Your task to perform on an android device: turn off javascript in the chrome app Image 0: 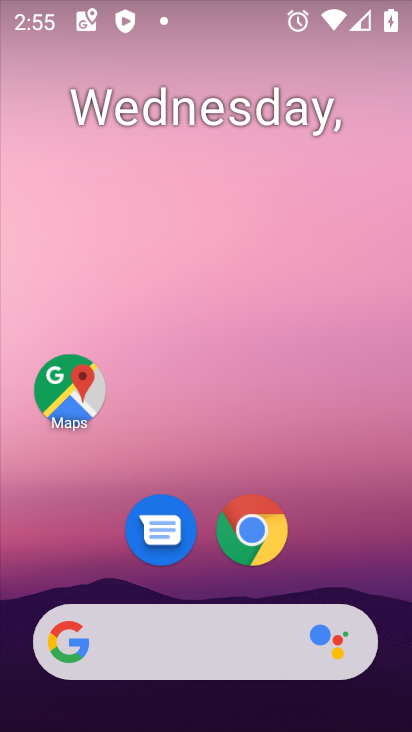
Step 0: drag from (192, 642) to (158, 79)
Your task to perform on an android device: turn off javascript in the chrome app Image 1: 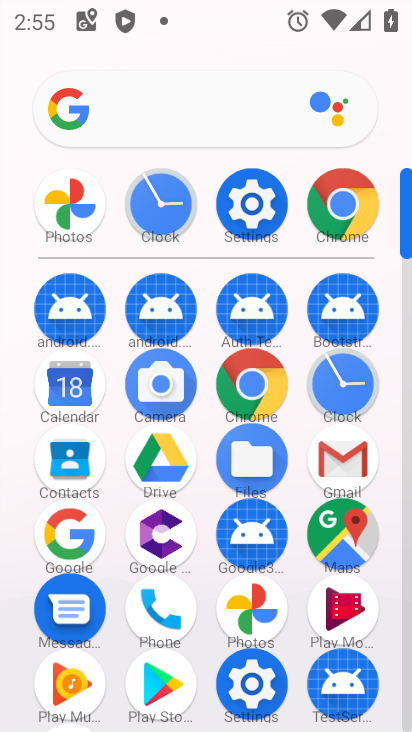
Step 1: click (358, 206)
Your task to perform on an android device: turn off javascript in the chrome app Image 2: 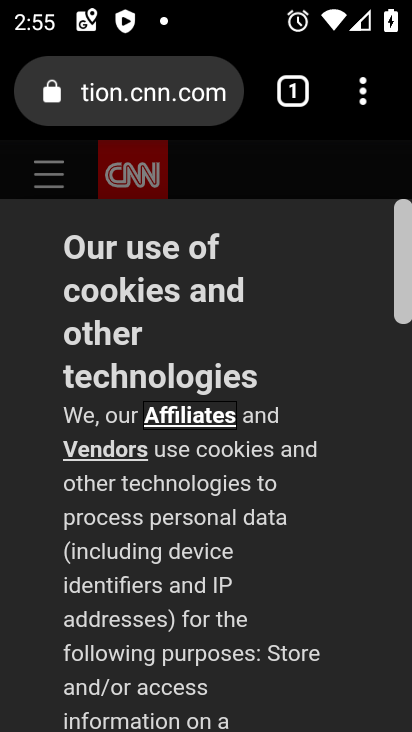
Step 2: click (358, 100)
Your task to perform on an android device: turn off javascript in the chrome app Image 3: 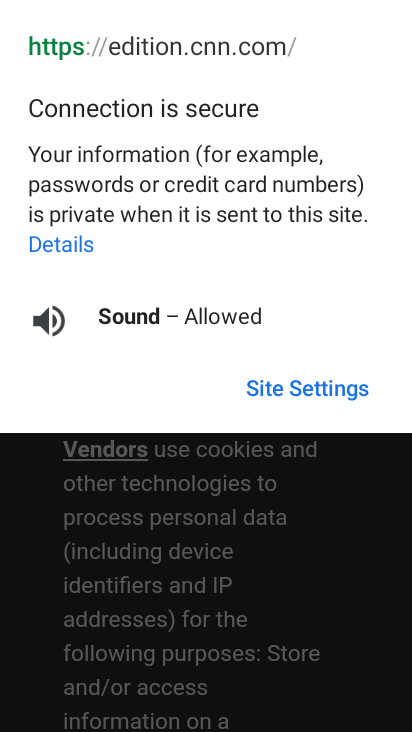
Step 3: press back button
Your task to perform on an android device: turn off javascript in the chrome app Image 4: 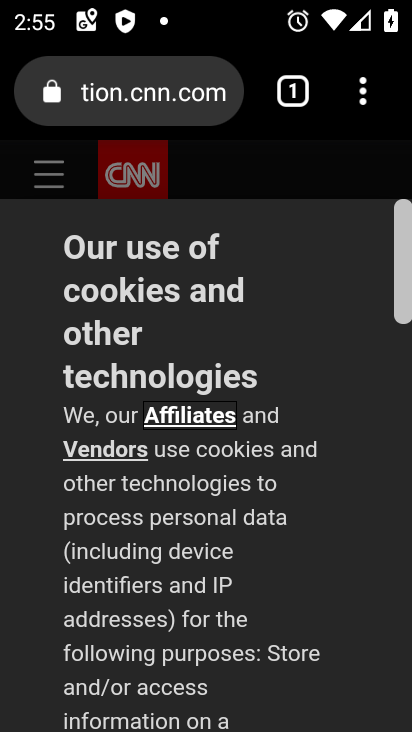
Step 4: drag from (354, 87) to (109, 557)
Your task to perform on an android device: turn off javascript in the chrome app Image 5: 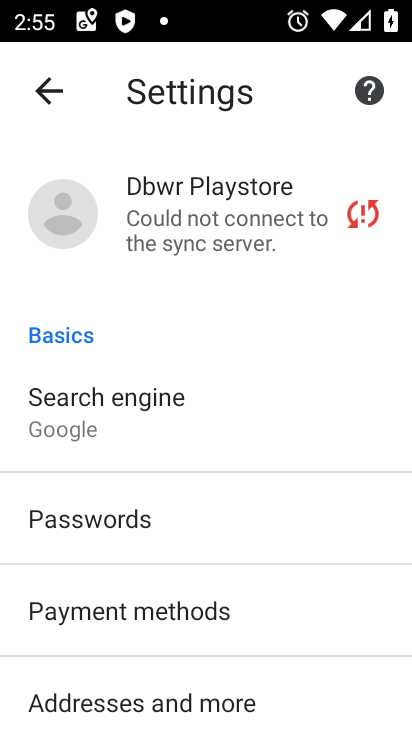
Step 5: drag from (133, 649) to (95, 131)
Your task to perform on an android device: turn off javascript in the chrome app Image 6: 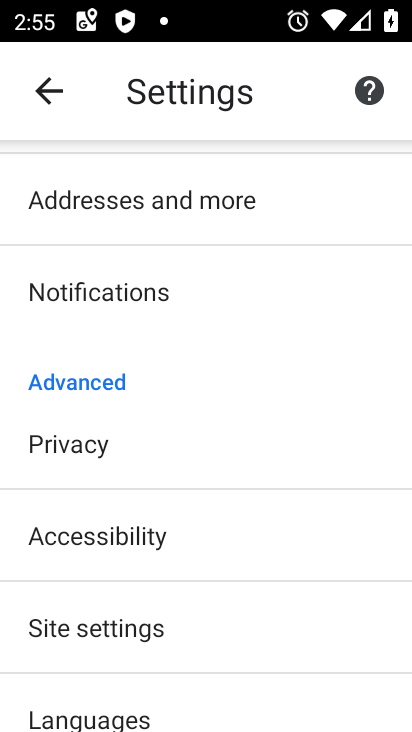
Step 6: click (156, 626)
Your task to perform on an android device: turn off javascript in the chrome app Image 7: 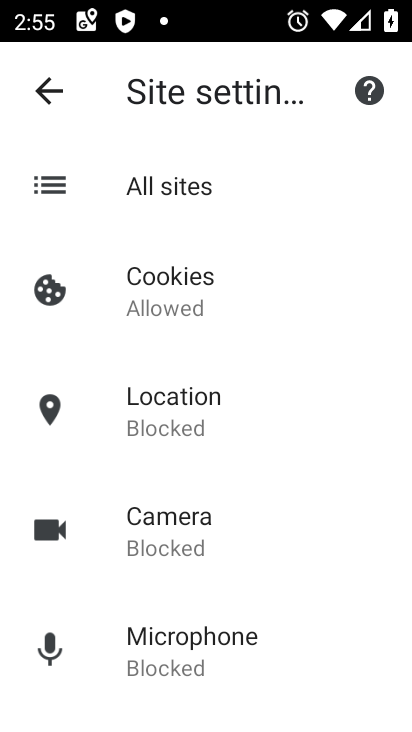
Step 7: drag from (184, 596) to (231, 107)
Your task to perform on an android device: turn off javascript in the chrome app Image 8: 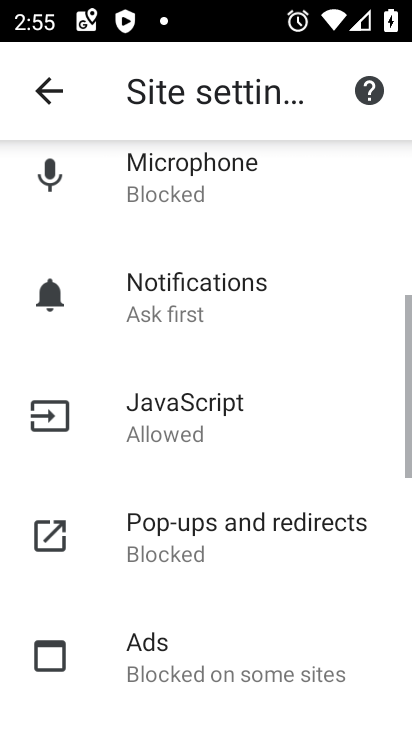
Step 8: click (169, 414)
Your task to perform on an android device: turn off javascript in the chrome app Image 9: 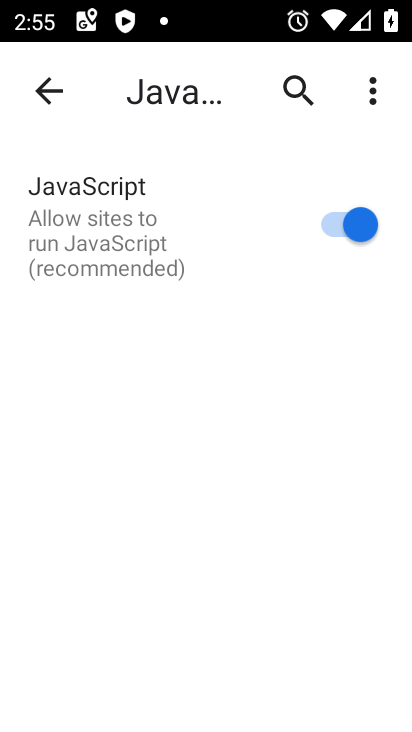
Step 9: click (352, 208)
Your task to perform on an android device: turn off javascript in the chrome app Image 10: 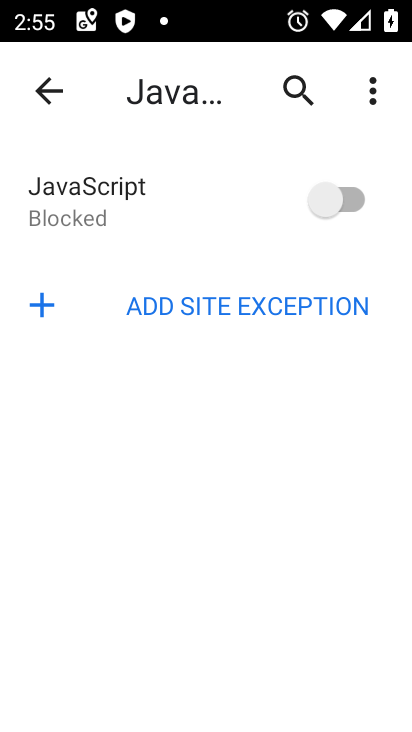
Step 10: task complete